Your task to perform on an android device: Go to eBay Image 0: 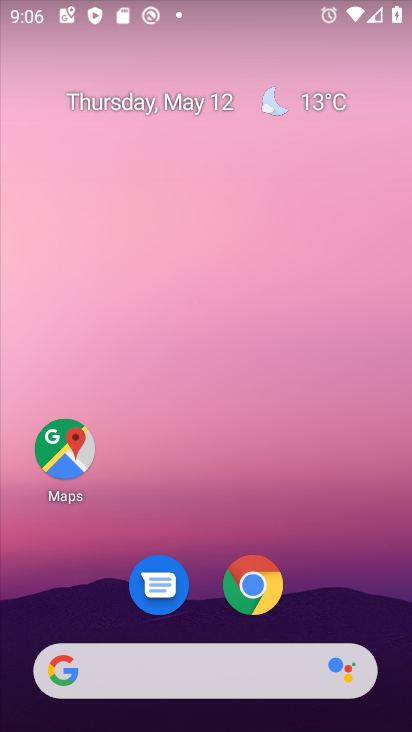
Step 0: click (226, 676)
Your task to perform on an android device: Go to eBay Image 1: 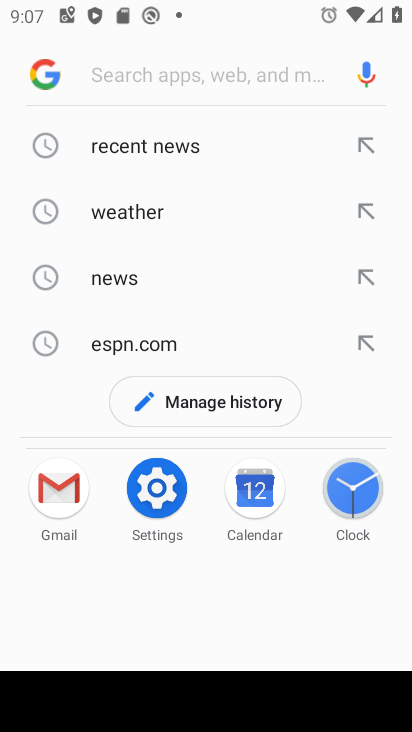
Step 1: type "ebay"
Your task to perform on an android device: Go to eBay Image 2: 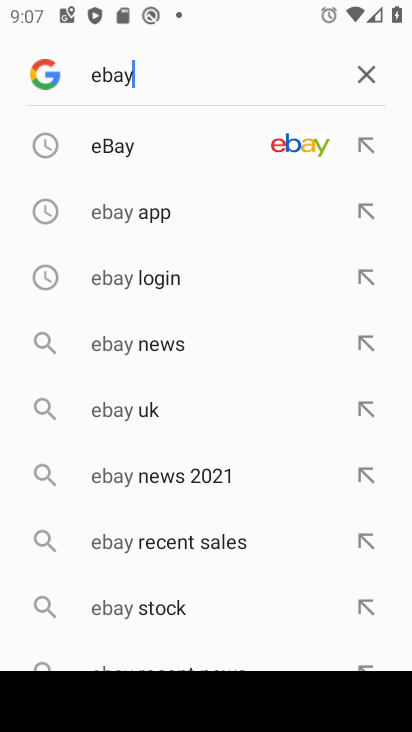
Step 2: click (133, 147)
Your task to perform on an android device: Go to eBay Image 3: 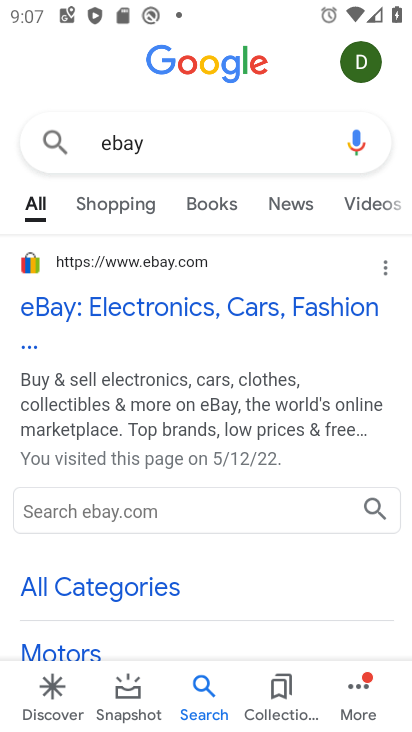
Step 3: click (118, 300)
Your task to perform on an android device: Go to eBay Image 4: 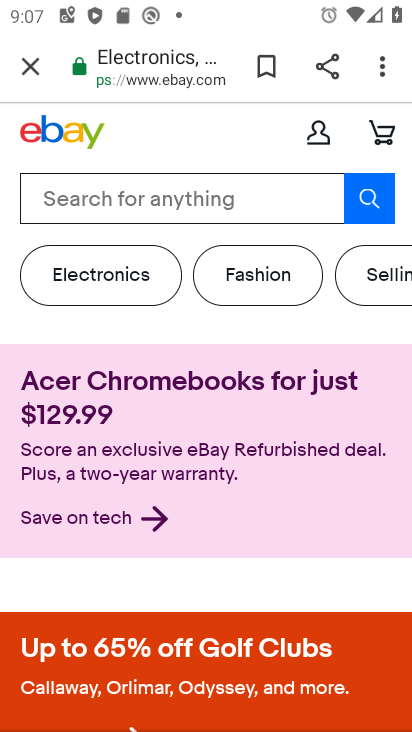
Step 4: task complete